Your task to perform on an android device: When is my next meeting? Image 0: 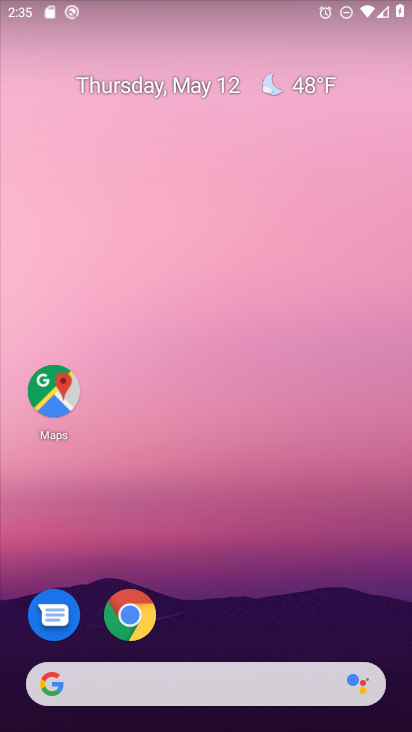
Step 0: drag from (163, 662) to (285, 31)
Your task to perform on an android device: When is my next meeting? Image 1: 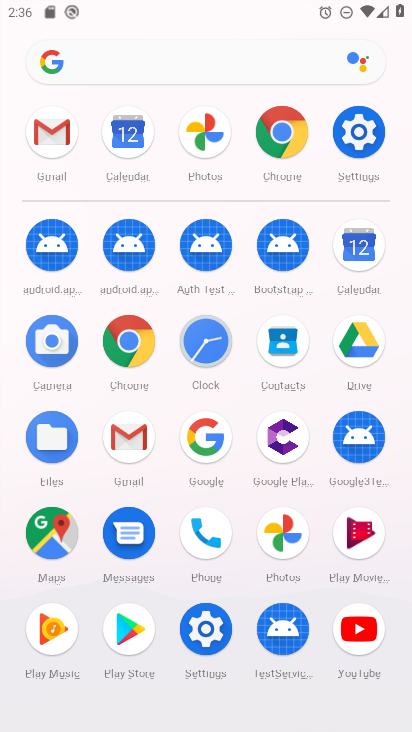
Step 1: click (142, 337)
Your task to perform on an android device: When is my next meeting? Image 2: 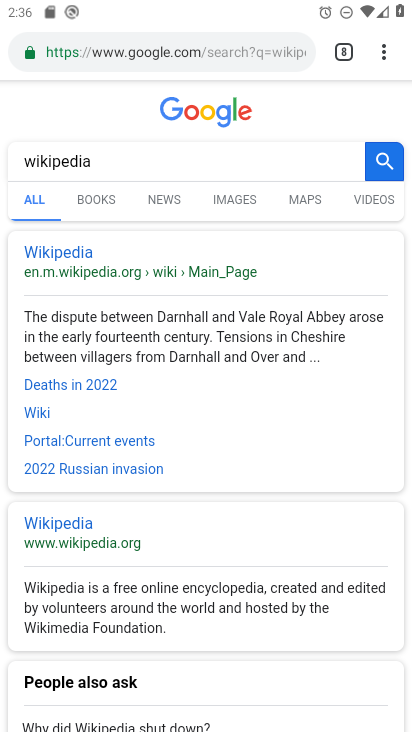
Step 2: click (286, 43)
Your task to perform on an android device: When is my next meeting? Image 3: 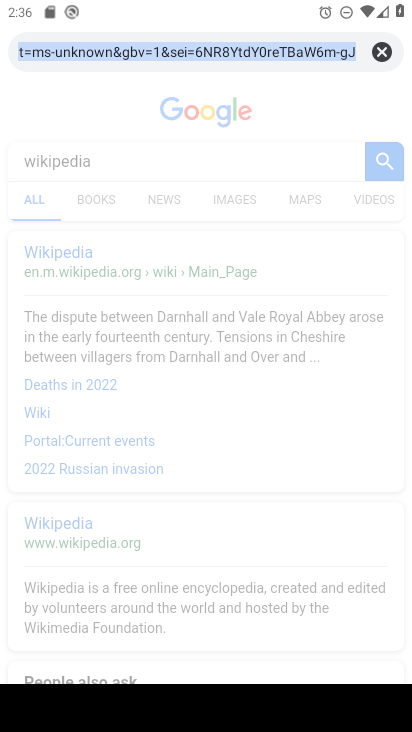
Step 3: press home button
Your task to perform on an android device: When is my next meeting? Image 4: 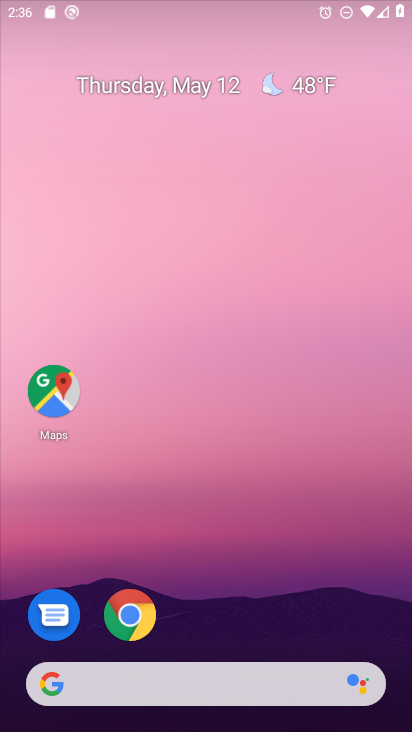
Step 4: drag from (271, 665) to (274, 6)
Your task to perform on an android device: When is my next meeting? Image 5: 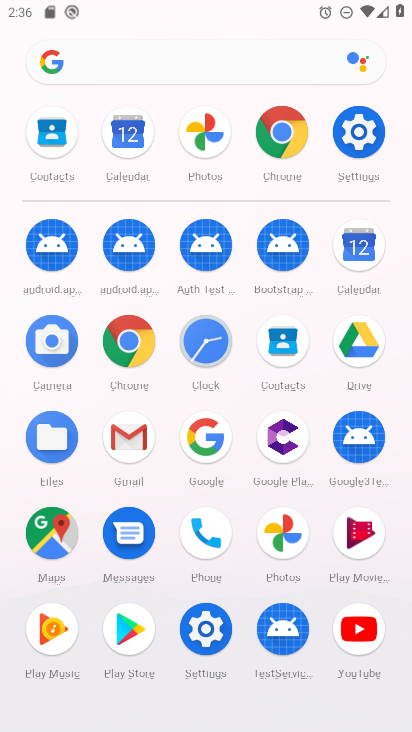
Step 5: click (357, 264)
Your task to perform on an android device: When is my next meeting? Image 6: 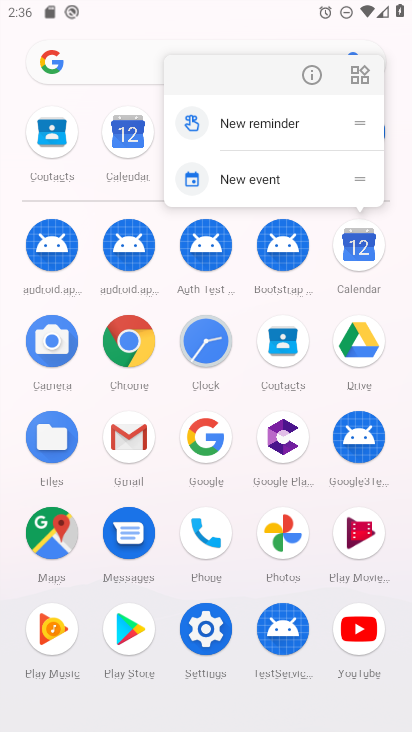
Step 6: click (349, 262)
Your task to perform on an android device: When is my next meeting? Image 7: 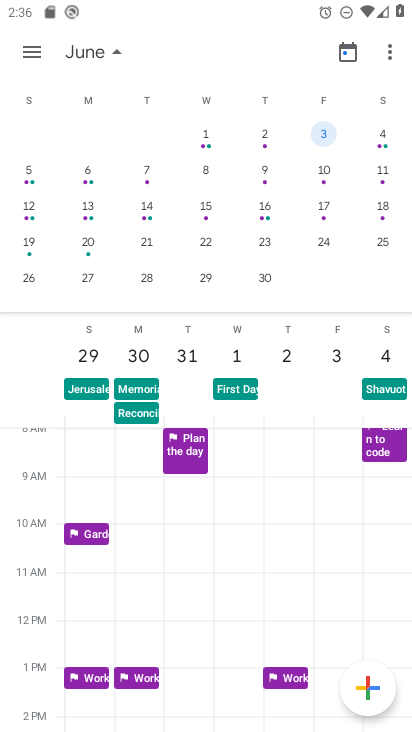
Step 7: drag from (59, 198) to (411, 201)
Your task to perform on an android device: When is my next meeting? Image 8: 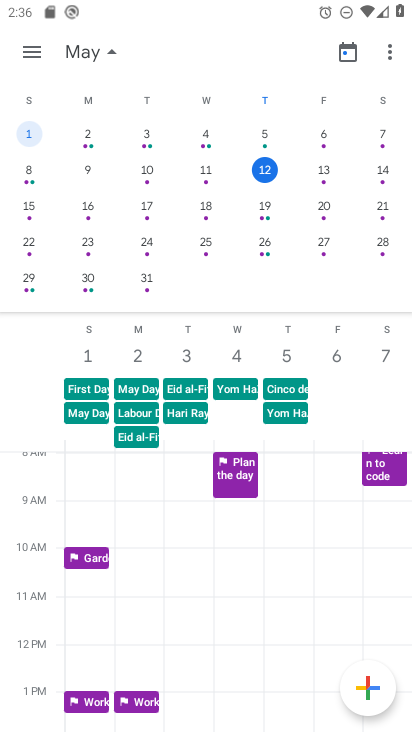
Step 8: click (275, 172)
Your task to perform on an android device: When is my next meeting? Image 9: 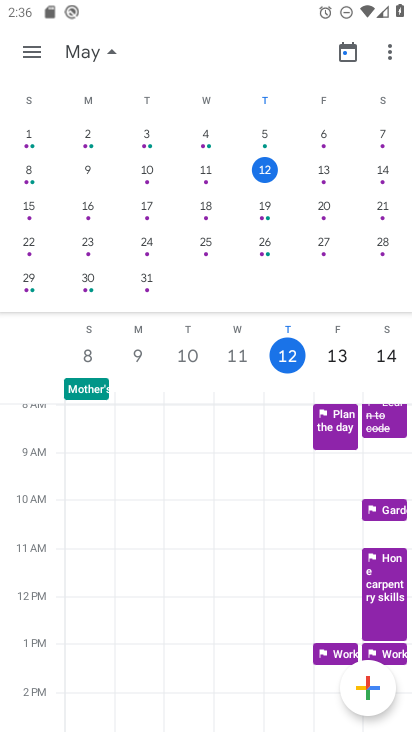
Step 9: task complete